Your task to perform on an android device: Open Yahoo.com Image 0: 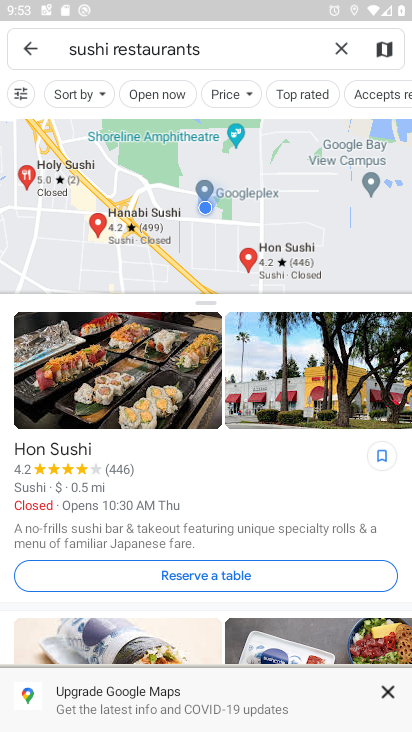
Step 0: press home button
Your task to perform on an android device: Open Yahoo.com Image 1: 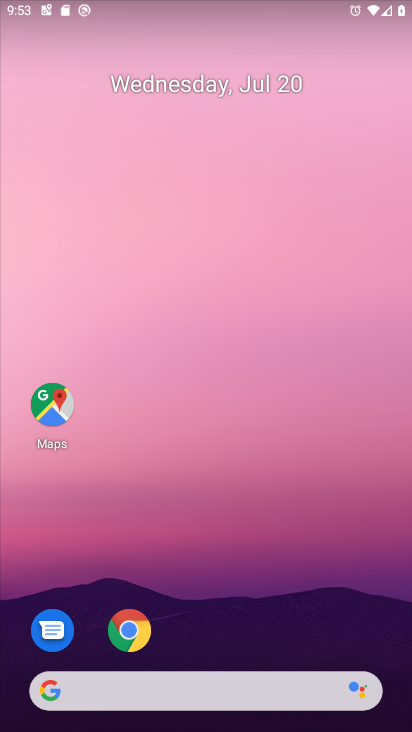
Step 1: drag from (178, 699) to (64, 118)
Your task to perform on an android device: Open Yahoo.com Image 2: 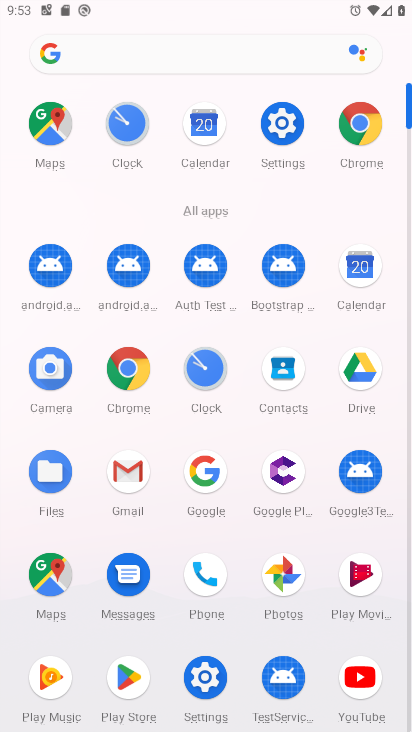
Step 2: drag from (181, 663) to (138, 245)
Your task to perform on an android device: Open Yahoo.com Image 3: 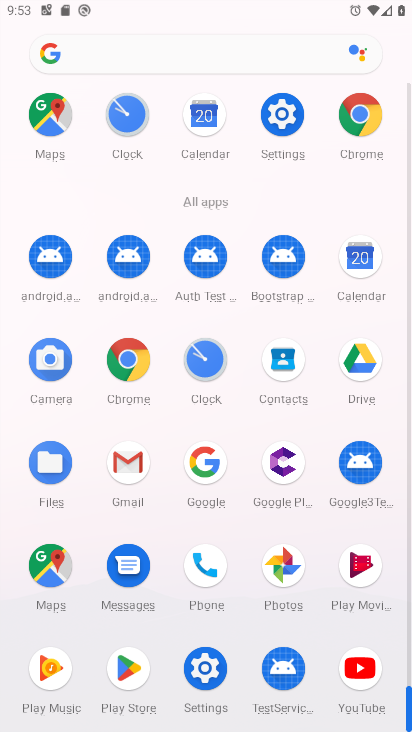
Step 3: click (366, 141)
Your task to perform on an android device: Open Yahoo.com Image 4: 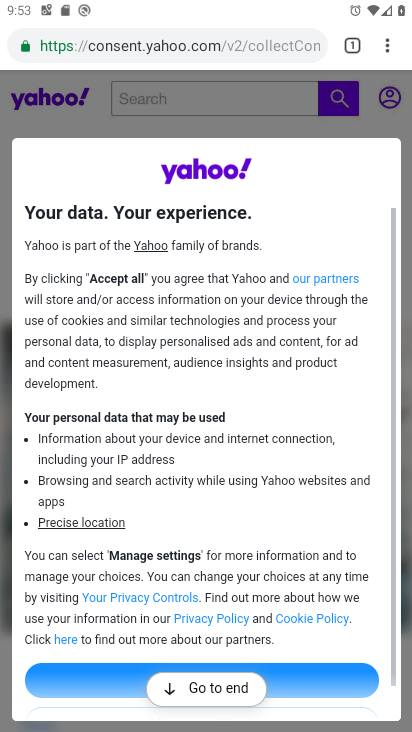
Step 4: task complete